Your task to perform on an android device: Add macbook pro 13 inch to the cart on newegg Image 0: 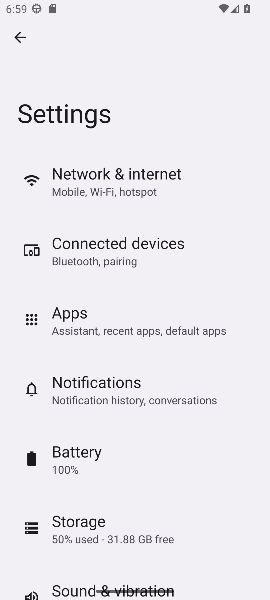
Step 0: press home button
Your task to perform on an android device: Add macbook pro 13 inch to the cart on newegg Image 1: 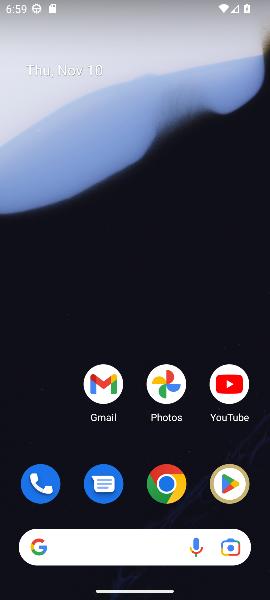
Step 1: click (164, 487)
Your task to perform on an android device: Add macbook pro 13 inch to the cart on newegg Image 2: 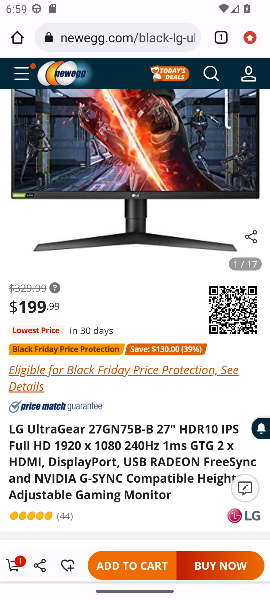
Step 2: click (212, 74)
Your task to perform on an android device: Add macbook pro 13 inch to the cart on newegg Image 3: 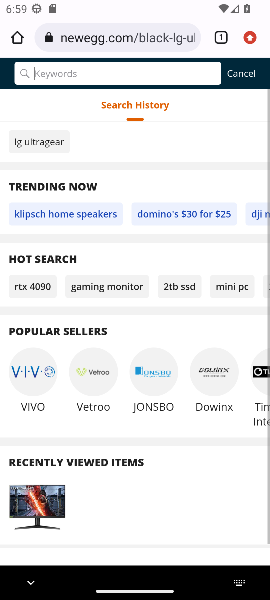
Step 3: type "macbook pro 13 inch"
Your task to perform on an android device: Add macbook pro 13 inch to the cart on newegg Image 4: 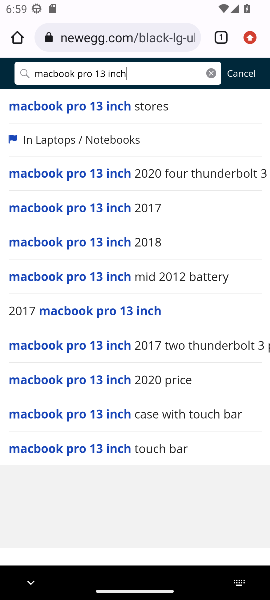
Step 4: click (87, 210)
Your task to perform on an android device: Add macbook pro 13 inch to the cart on newegg Image 5: 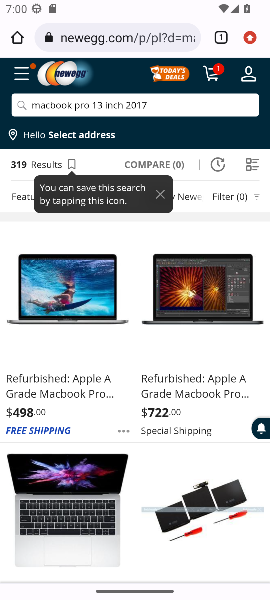
Step 5: click (80, 319)
Your task to perform on an android device: Add macbook pro 13 inch to the cart on newegg Image 6: 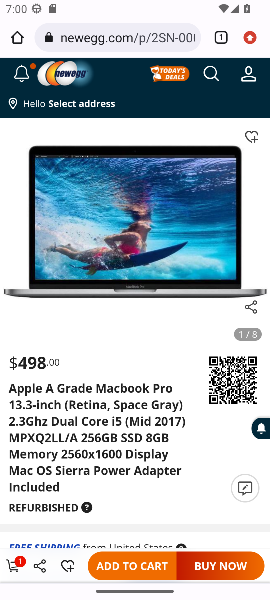
Step 6: press back button
Your task to perform on an android device: Add macbook pro 13 inch to the cart on newegg Image 7: 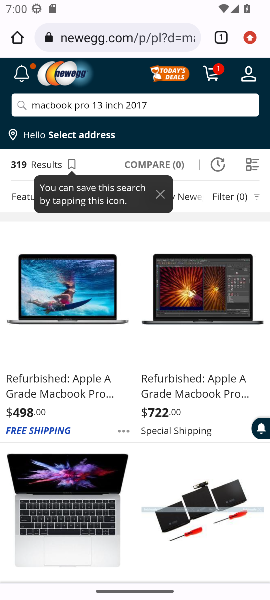
Step 7: click (224, 348)
Your task to perform on an android device: Add macbook pro 13 inch to the cart on newegg Image 8: 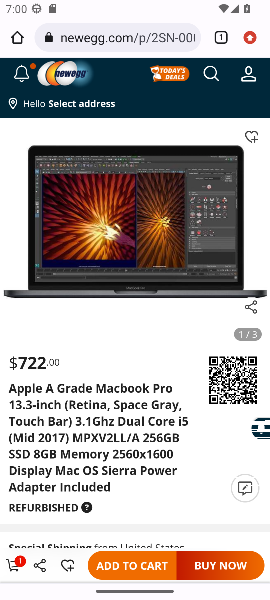
Step 8: press back button
Your task to perform on an android device: Add macbook pro 13 inch to the cart on newegg Image 9: 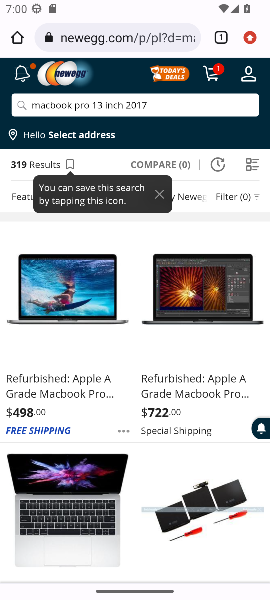
Step 9: drag from (101, 440) to (82, 236)
Your task to perform on an android device: Add macbook pro 13 inch to the cart on newegg Image 10: 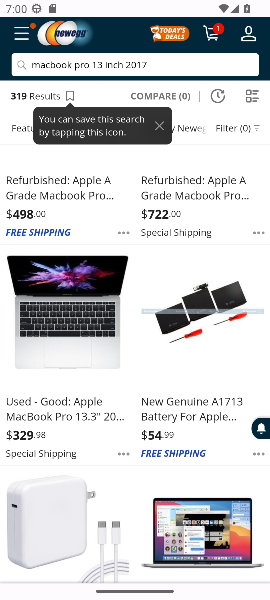
Step 10: drag from (88, 408) to (74, 217)
Your task to perform on an android device: Add macbook pro 13 inch to the cart on newegg Image 11: 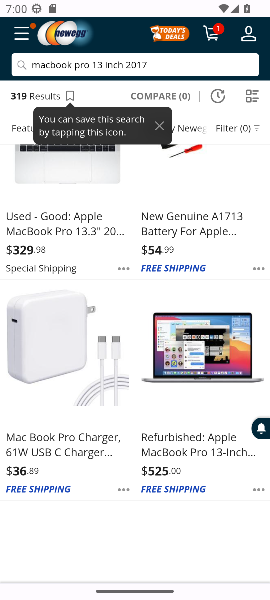
Step 11: click (185, 397)
Your task to perform on an android device: Add macbook pro 13 inch to the cart on newegg Image 12: 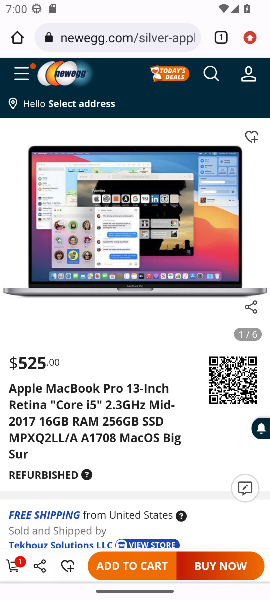
Step 12: click (147, 569)
Your task to perform on an android device: Add macbook pro 13 inch to the cart on newegg Image 13: 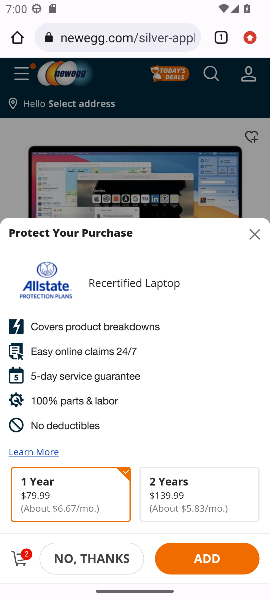
Step 13: task complete